Your task to perform on an android device: What's the weather today? Image 0: 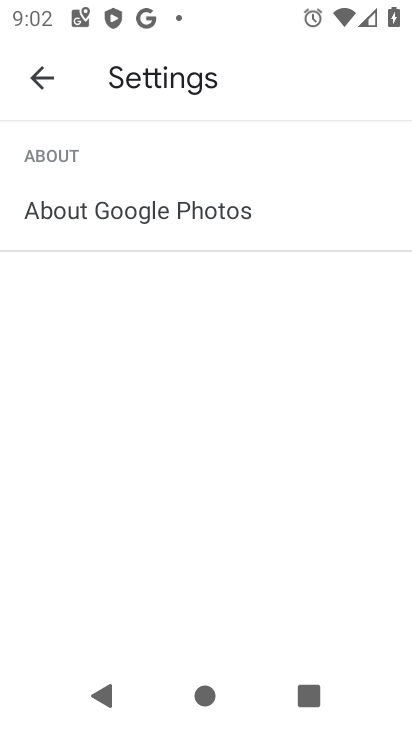
Step 0: press home button
Your task to perform on an android device: What's the weather today? Image 1: 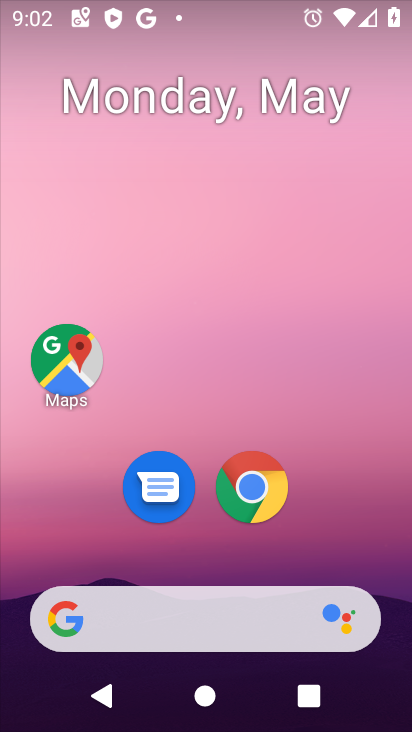
Step 1: click (205, 613)
Your task to perform on an android device: What's the weather today? Image 2: 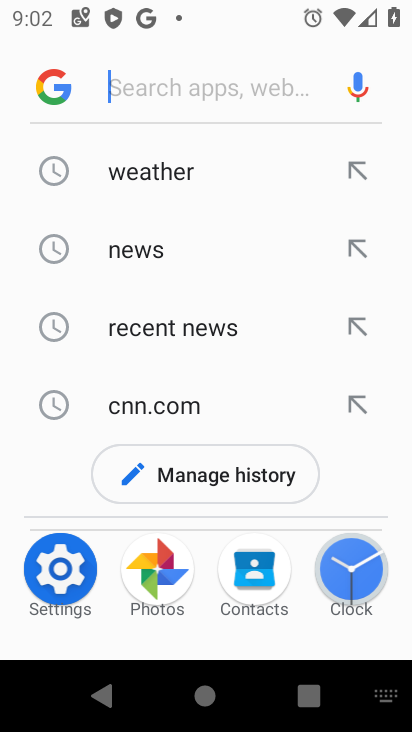
Step 2: click (191, 183)
Your task to perform on an android device: What's the weather today? Image 3: 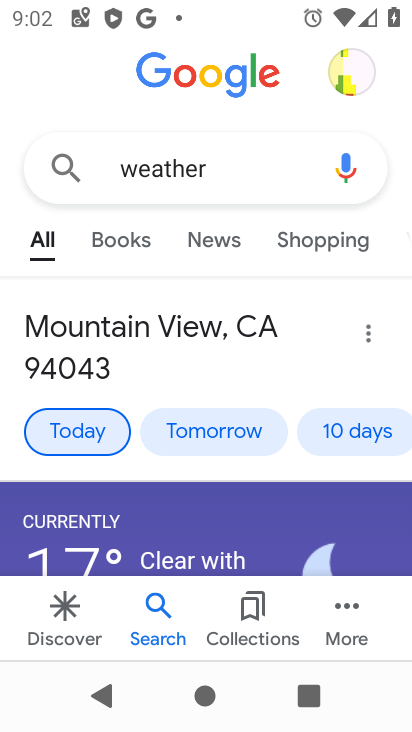
Step 3: task complete